Your task to perform on an android device: check out phone information Image 0: 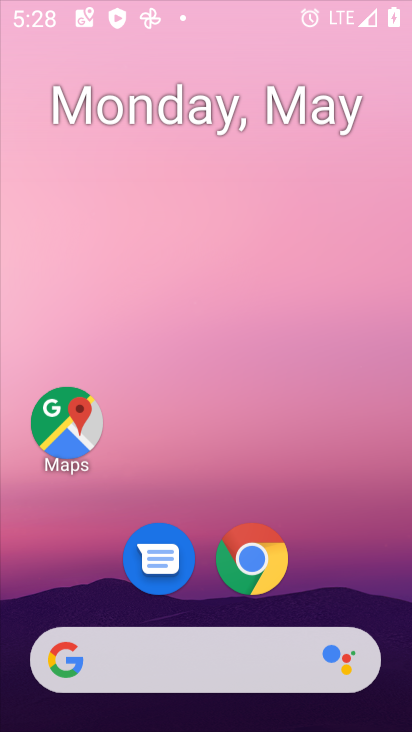
Step 0: drag from (287, 542) to (337, 15)
Your task to perform on an android device: check out phone information Image 1: 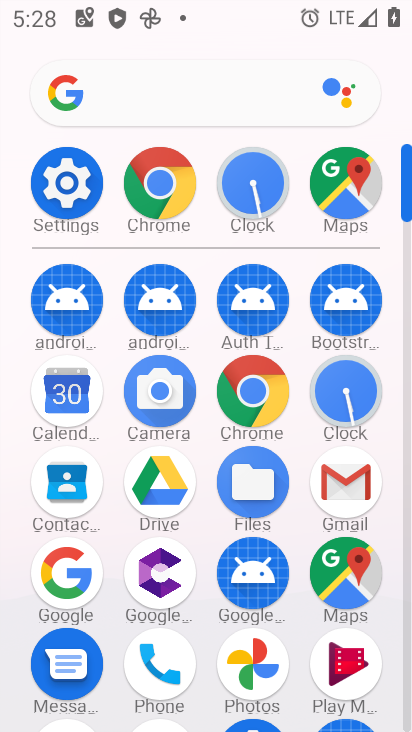
Step 1: click (73, 168)
Your task to perform on an android device: check out phone information Image 2: 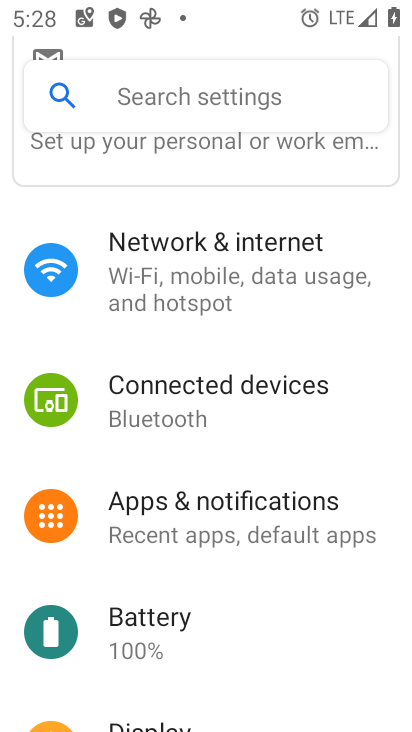
Step 2: drag from (297, 621) to (350, 54)
Your task to perform on an android device: check out phone information Image 3: 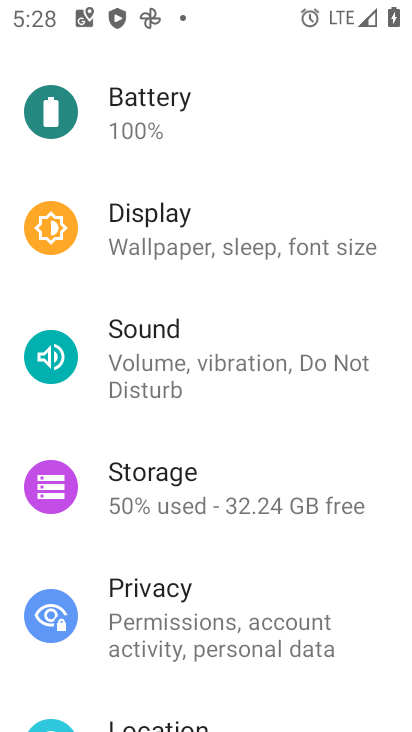
Step 3: drag from (243, 718) to (304, 218)
Your task to perform on an android device: check out phone information Image 4: 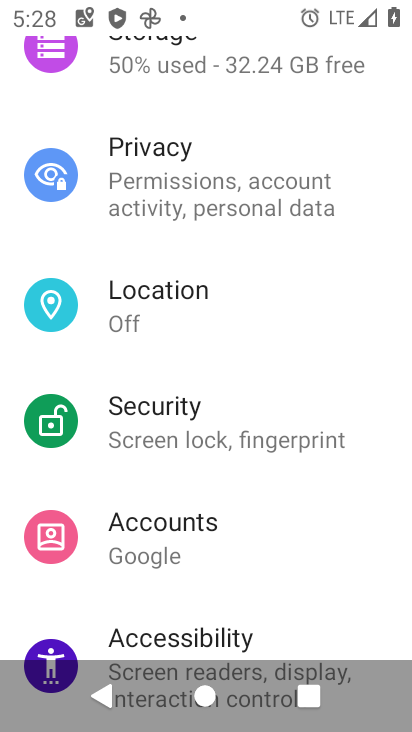
Step 4: drag from (325, 627) to (355, 238)
Your task to perform on an android device: check out phone information Image 5: 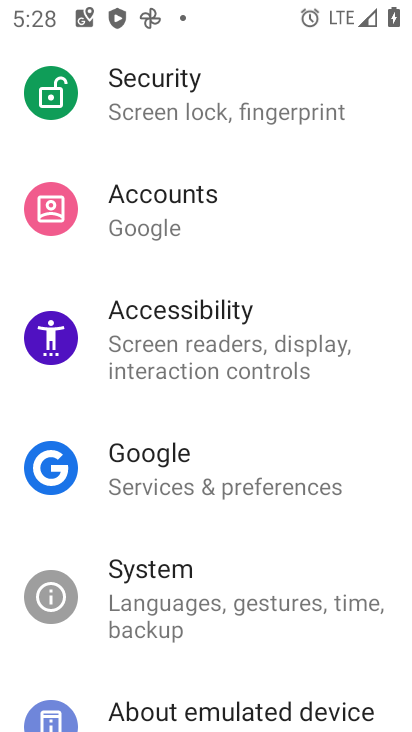
Step 5: click (220, 703)
Your task to perform on an android device: check out phone information Image 6: 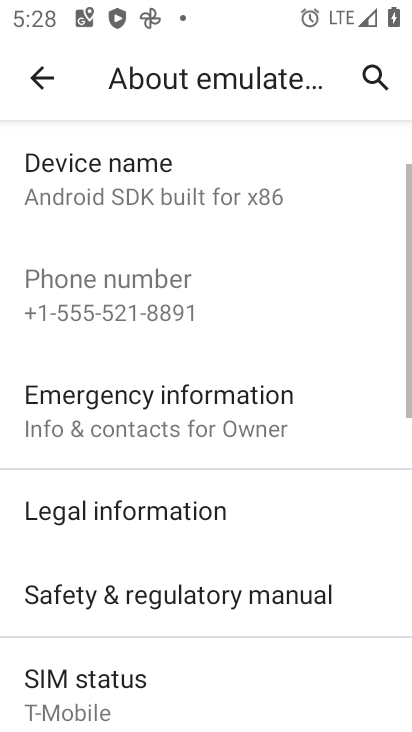
Step 6: task complete